Your task to perform on an android device: Open battery settings Image 0: 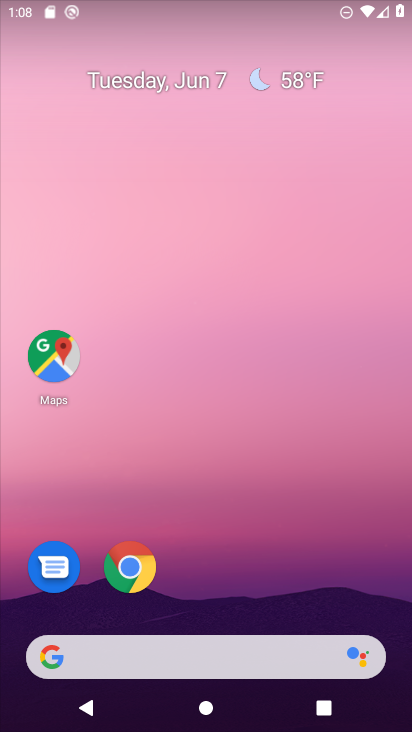
Step 0: drag from (404, 704) to (309, 66)
Your task to perform on an android device: Open battery settings Image 1: 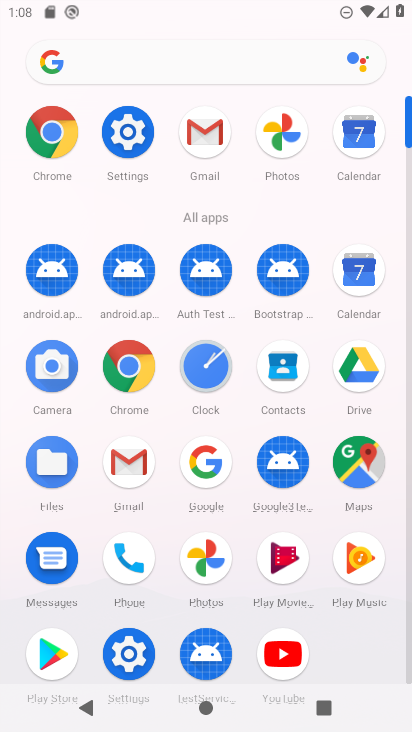
Step 1: click (119, 136)
Your task to perform on an android device: Open battery settings Image 2: 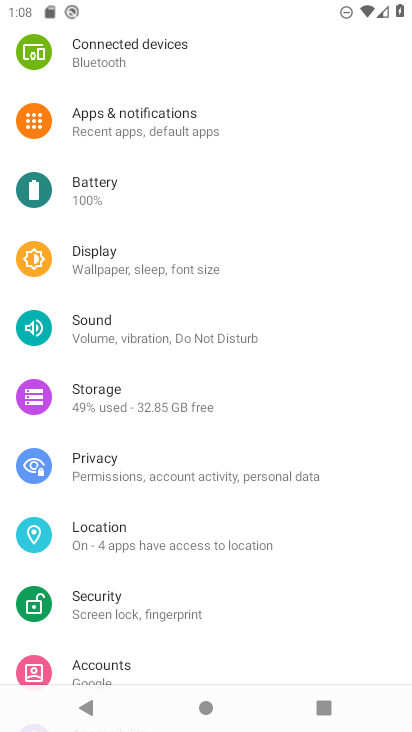
Step 2: click (87, 200)
Your task to perform on an android device: Open battery settings Image 3: 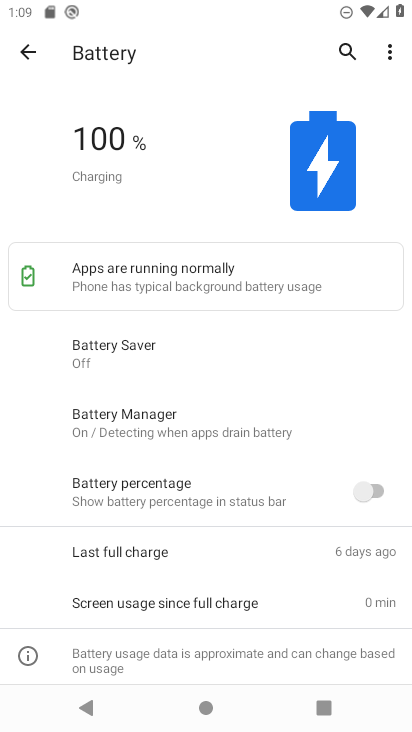
Step 3: task complete